Your task to perform on an android device: Go to accessibility settings Image 0: 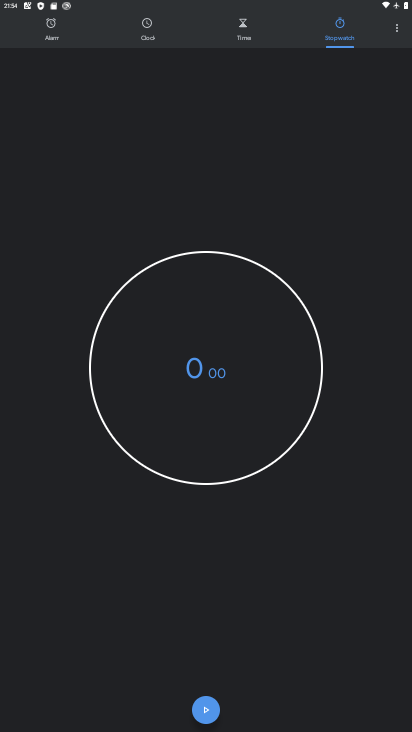
Step 0: press home button
Your task to perform on an android device: Go to accessibility settings Image 1: 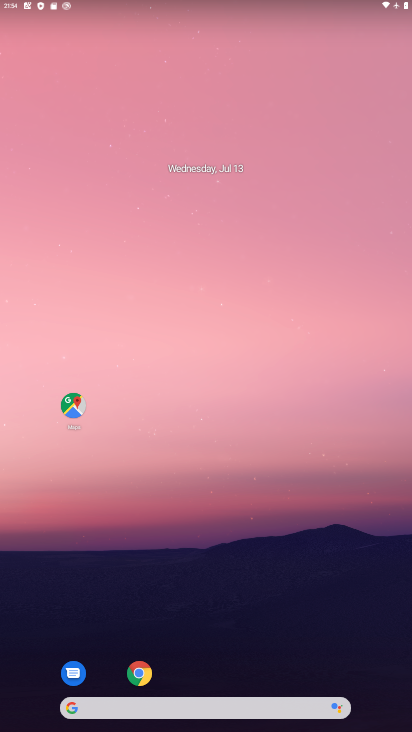
Step 1: drag from (199, 680) to (189, 217)
Your task to perform on an android device: Go to accessibility settings Image 2: 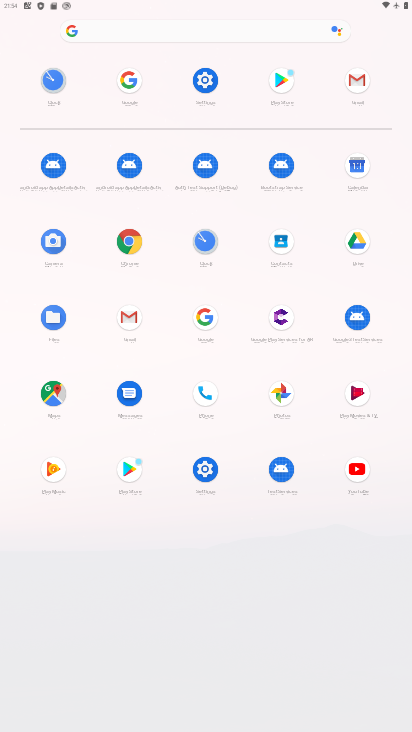
Step 2: click (203, 92)
Your task to perform on an android device: Go to accessibility settings Image 3: 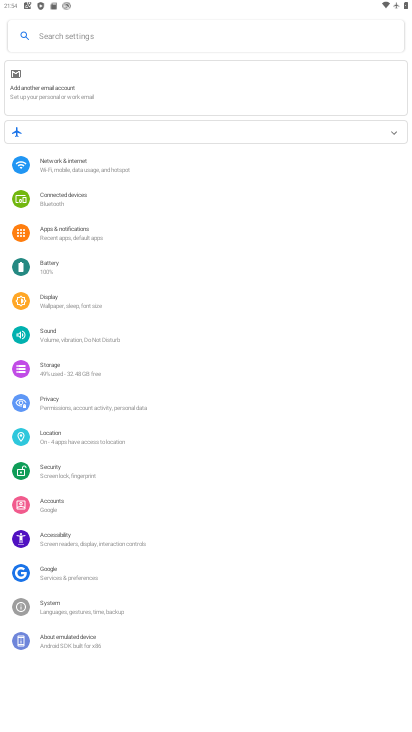
Step 3: click (60, 535)
Your task to perform on an android device: Go to accessibility settings Image 4: 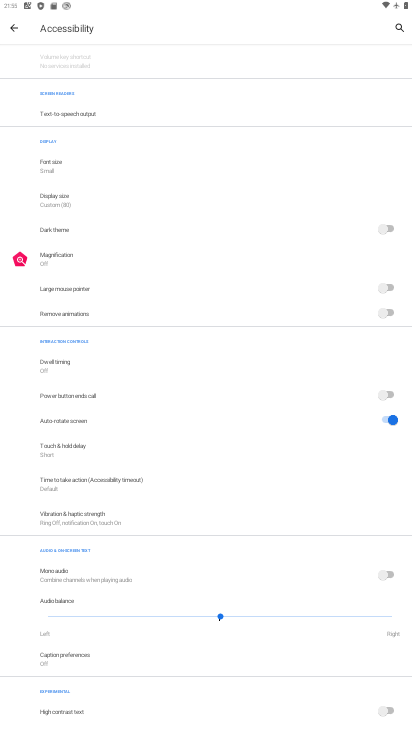
Step 4: task complete